Your task to perform on an android device: turn pop-ups off in chrome Image 0: 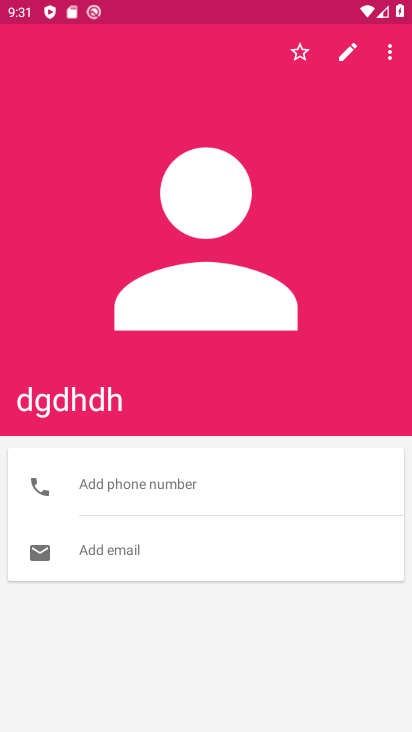
Step 0: press home button
Your task to perform on an android device: turn pop-ups off in chrome Image 1: 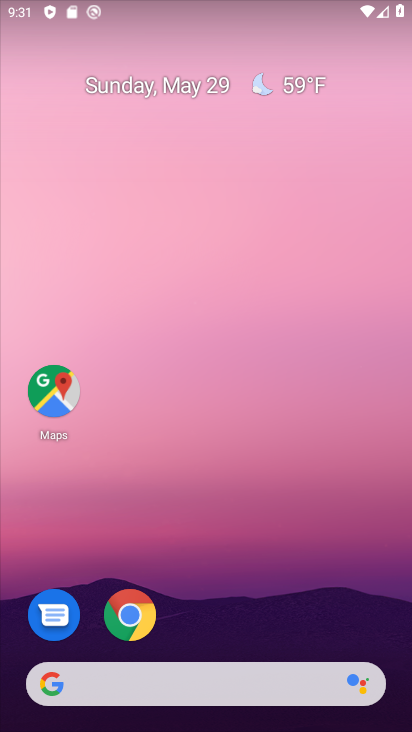
Step 1: click (134, 617)
Your task to perform on an android device: turn pop-ups off in chrome Image 2: 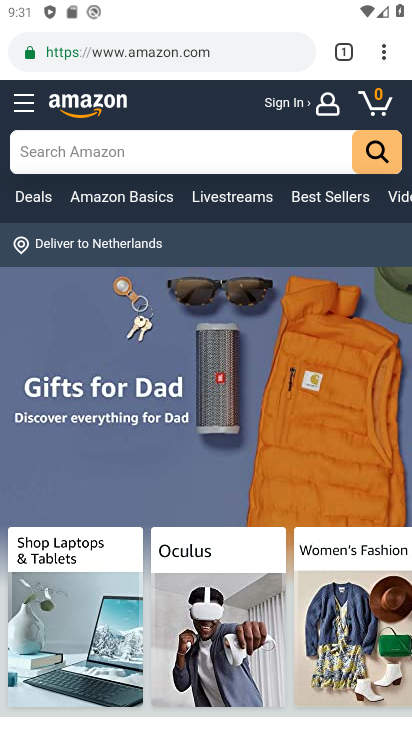
Step 2: click (383, 55)
Your task to perform on an android device: turn pop-ups off in chrome Image 3: 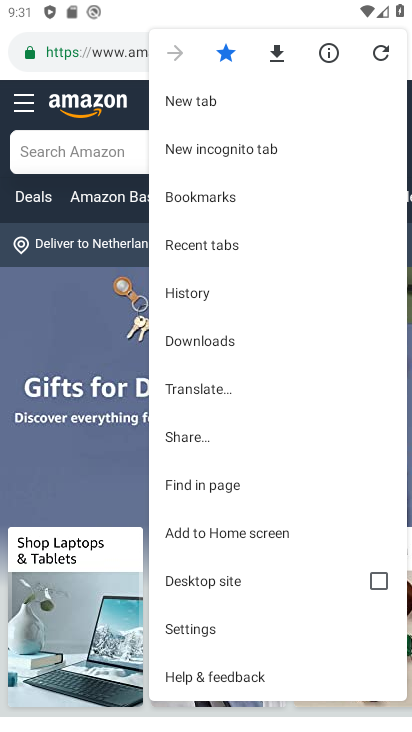
Step 3: click (230, 618)
Your task to perform on an android device: turn pop-ups off in chrome Image 4: 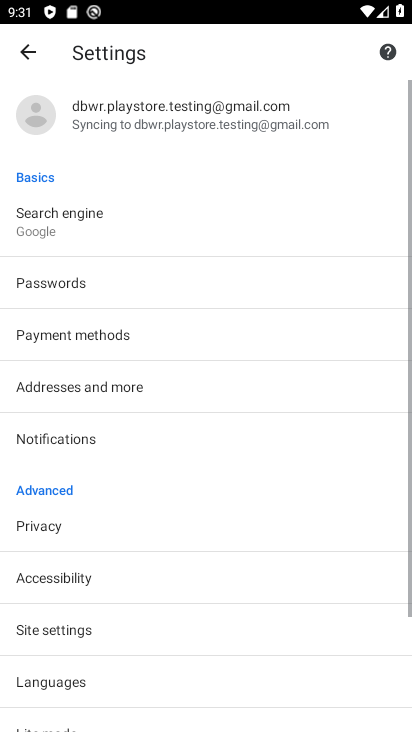
Step 4: click (75, 625)
Your task to perform on an android device: turn pop-ups off in chrome Image 5: 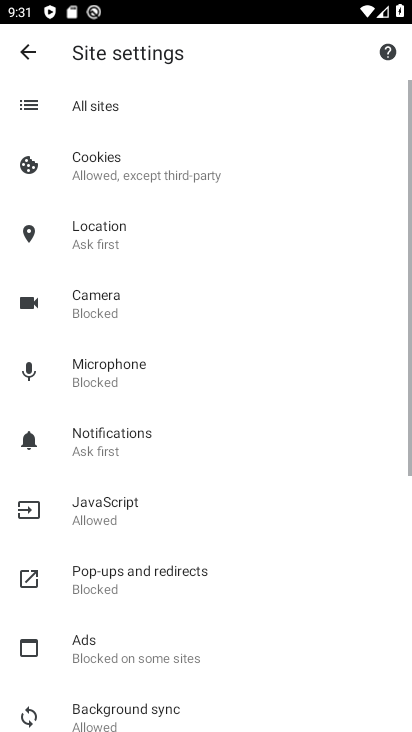
Step 5: click (139, 589)
Your task to perform on an android device: turn pop-ups off in chrome Image 6: 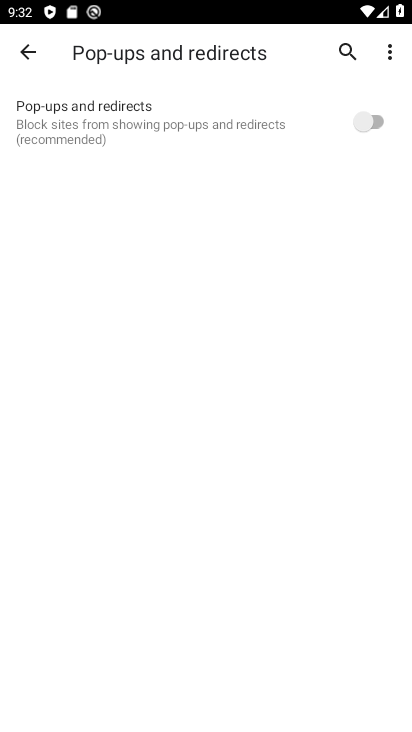
Step 6: task complete